Your task to perform on an android device: Go to wifi settings Image 0: 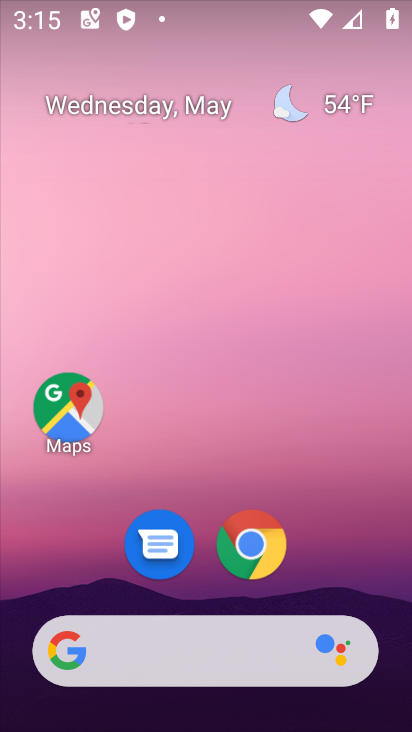
Step 0: drag from (352, 557) to (310, 142)
Your task to perform on an android device: Go to wifi settings Image 1: 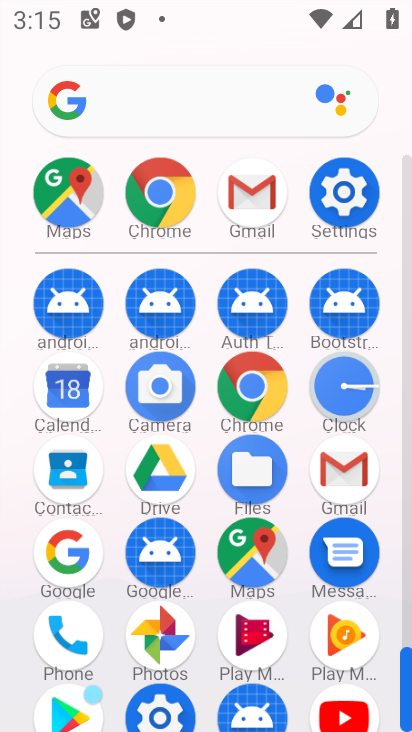
Step 1: click (342, 246)
Your task to perform on an android device: Go to wifi settings Image 2: 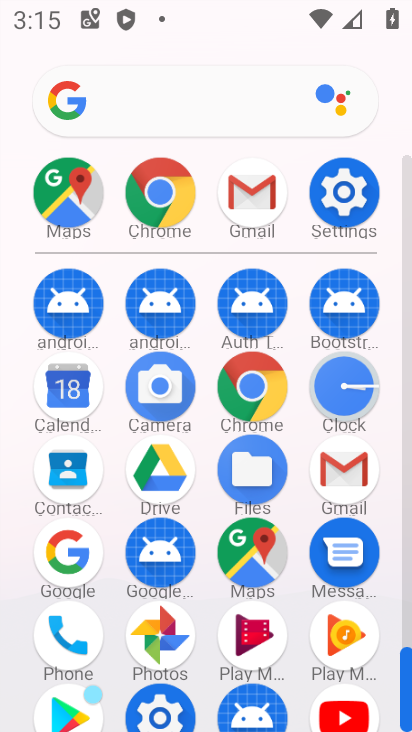
Step 2: click (342, 232)
Your task to perform on an android device: Go to wifi settings Image 3: 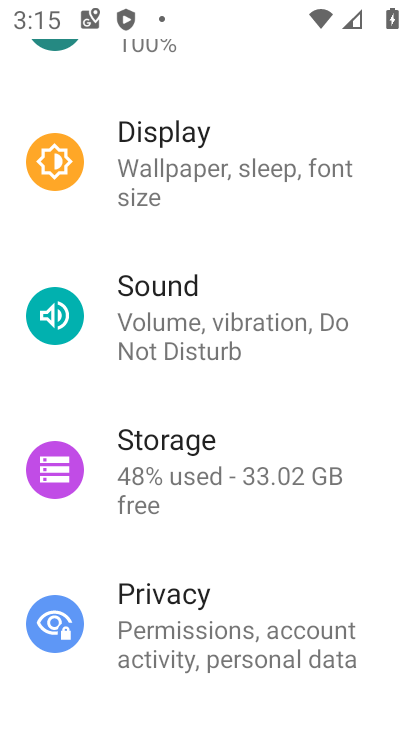
Step 3: drag from (258, 305) to (249, 600)
Your task to perform on an android device: Go to wifi settings Image 4: 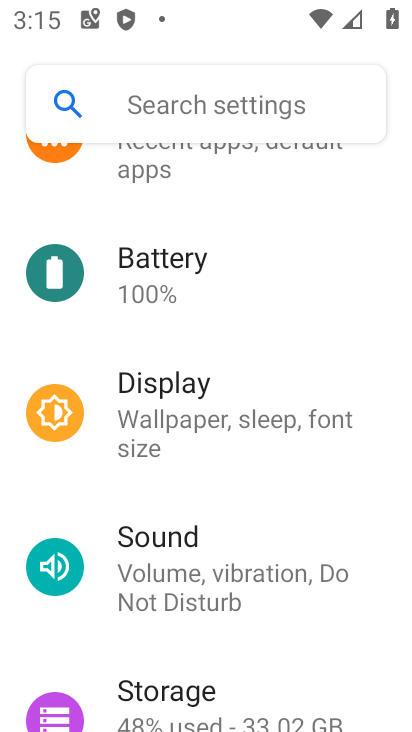
Step 4: drag from (227, 191) to (215, 548)
Your task to perform on an android device: Go to wifi settings Image 5: 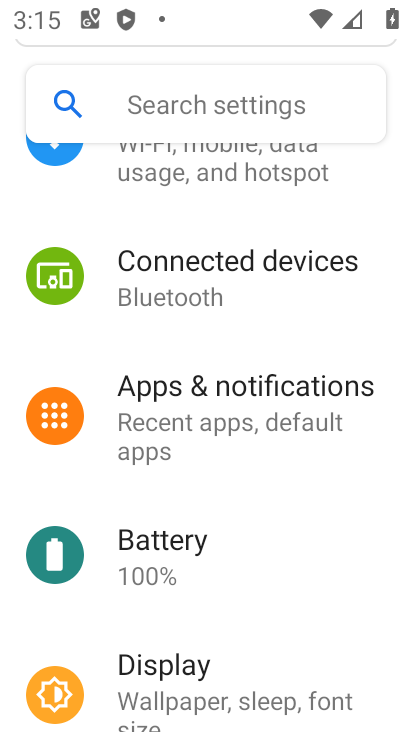
Step 5: drag from (204, 228) to (204, 715)
Your task to perform on an android device: Go to wifi settings Image 6: 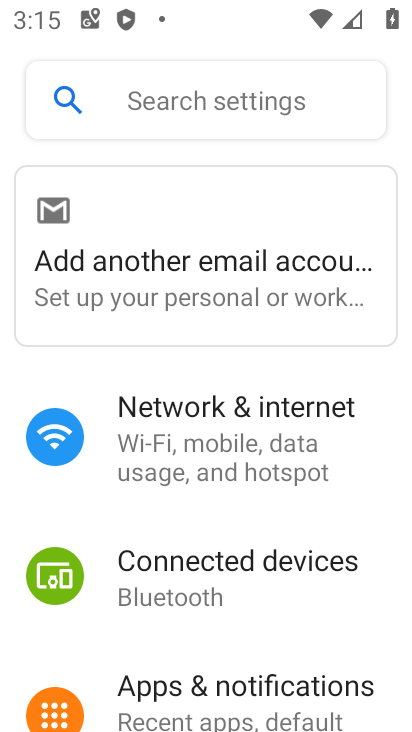
Step 6: click (243, 466)
Your task to perform on an android device: Go to wifi settings Image 7: 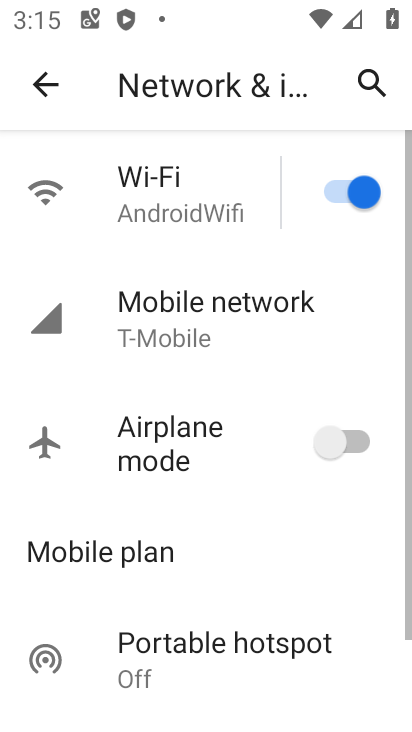
Step 7: click (206, 195)
Your task to perform on an android device: Go to wifi settings Image 8: 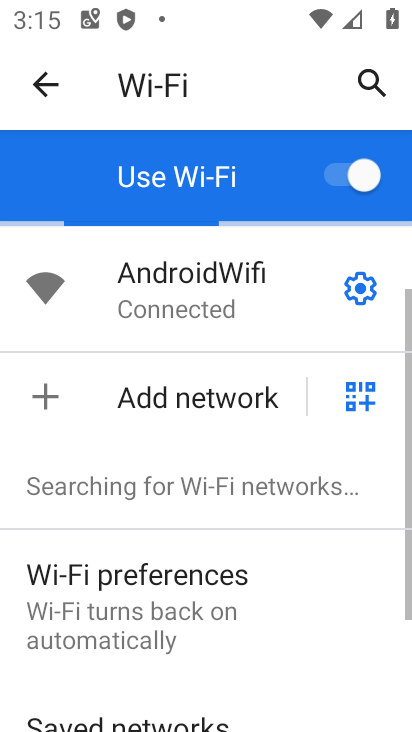
Step 8: task complete